Your task to perform on an android device: move a message to another label in the gmail app Image 0: 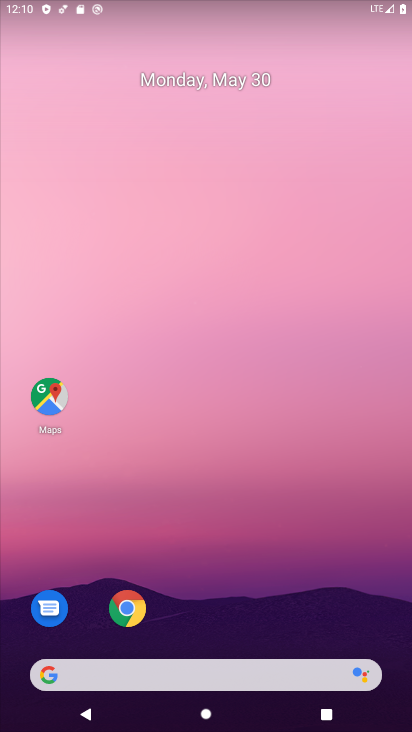
Step 0: drag from (225, 617) to (272, 23)
Your task to perform on an android device: move a message to another label in the gmail app Image 1: 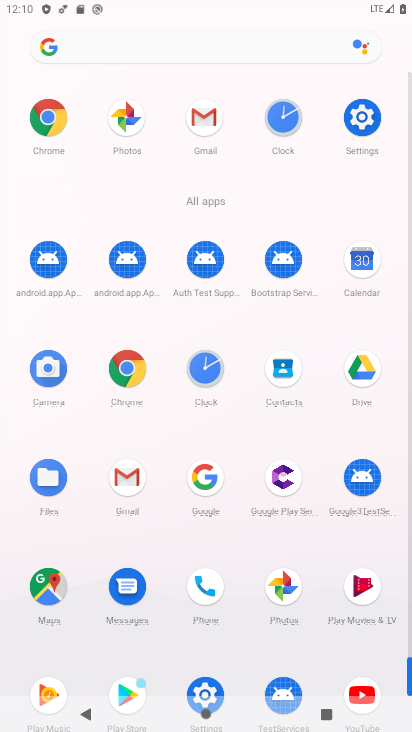
Step 1: click (137, 477)
Your task to perform on an android device: move a message to another label in the gmail app Image 2: 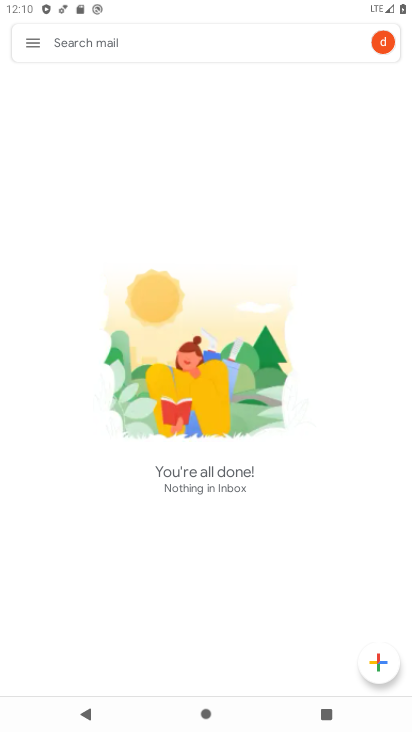
Step 2: click (36, 38)
Your task to perform on an android device: move a message to another label in the gmail app Image 3: 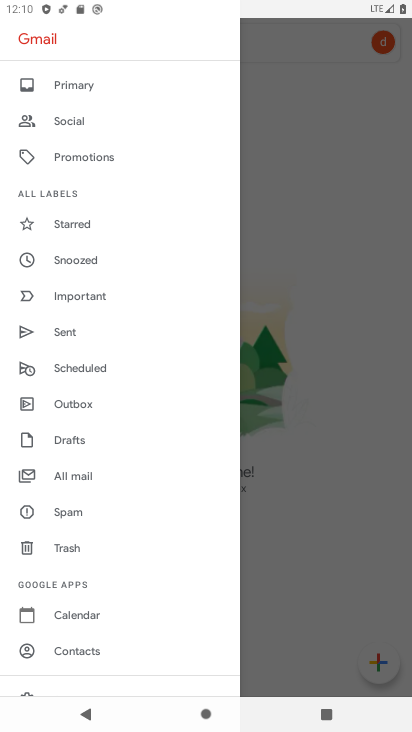
Step 3: click (104, 485)
Your task to perform on an android device: move a message to another label in the gmail app Image 4: 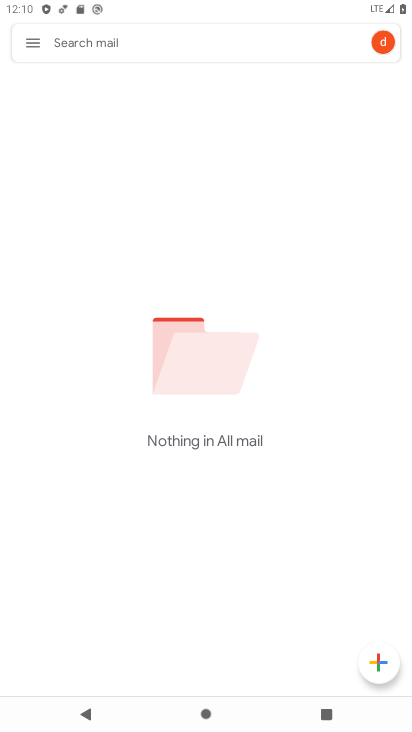
Step 4: task complete